Your task to perform on an android device: uninstall "YouTube Kids" Image 0: 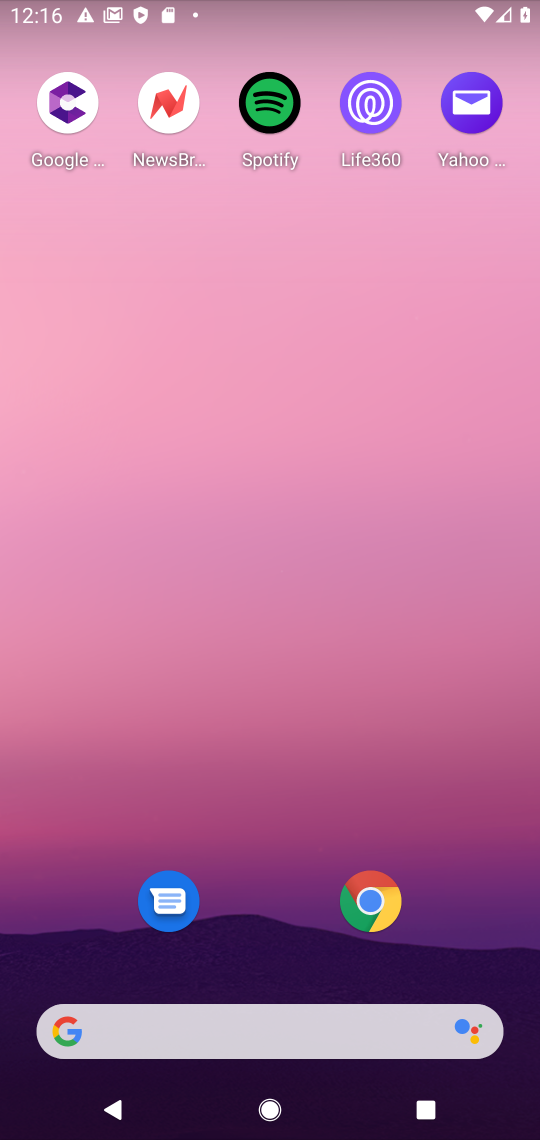
Step 0: drag from (323, 1021) to (371, 105)
Your task to perform on an android device: uninstall "YouTube Kids" Image 1: 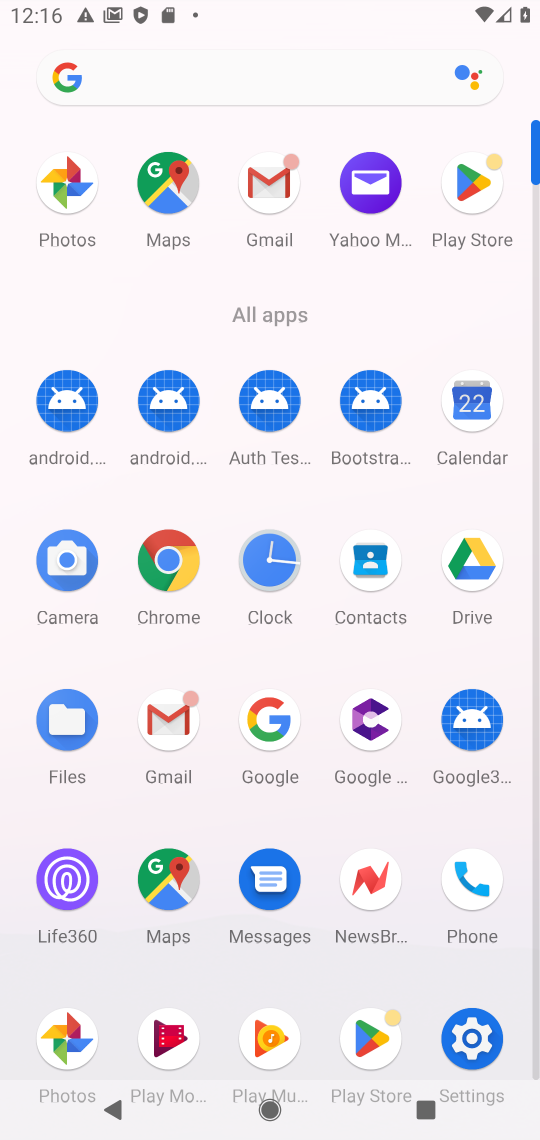
Step 1: click (377, 1055)
Your task to perform on an android device: uninstall "YouTube Kids" Image 2: 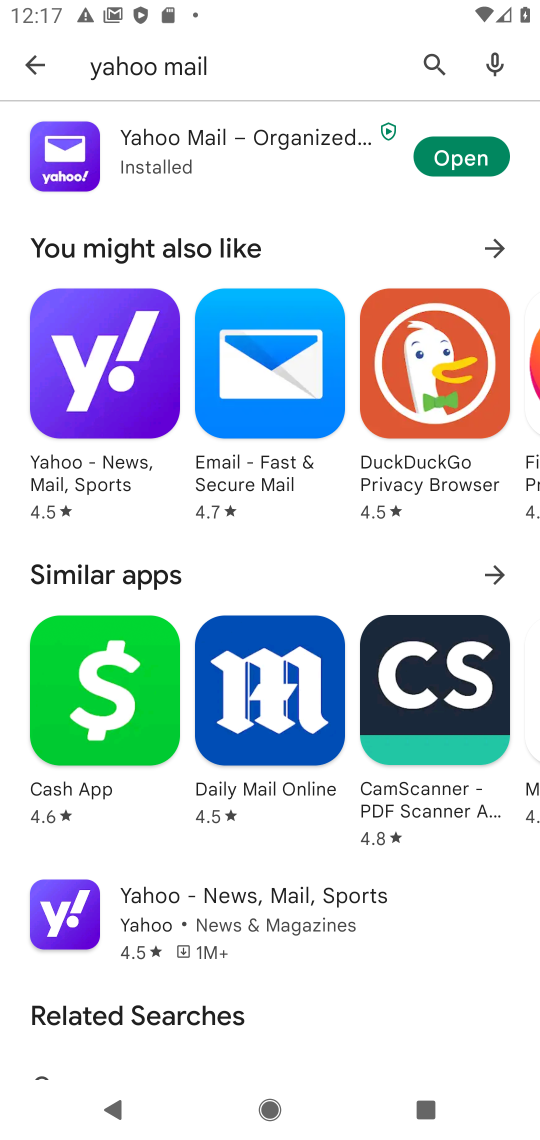
Step 2: click (422, 68)
Your task to perform on an android device: uninstall "YouTube Kids" Image 3: 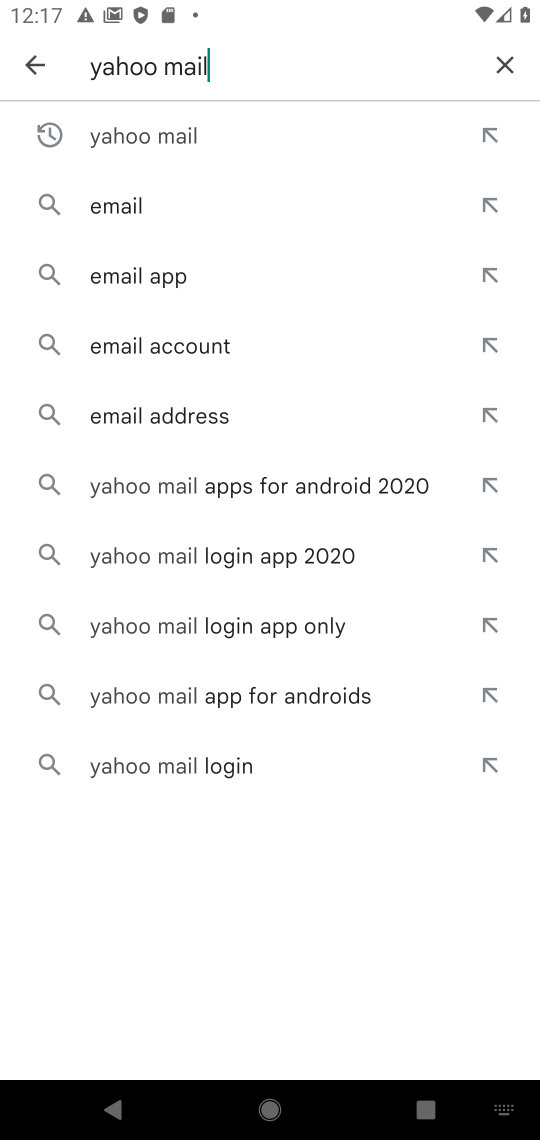
Step 3: click (509, 68)
Your task to perform on an android device: uninstall "YouTube Kids" Image 4: 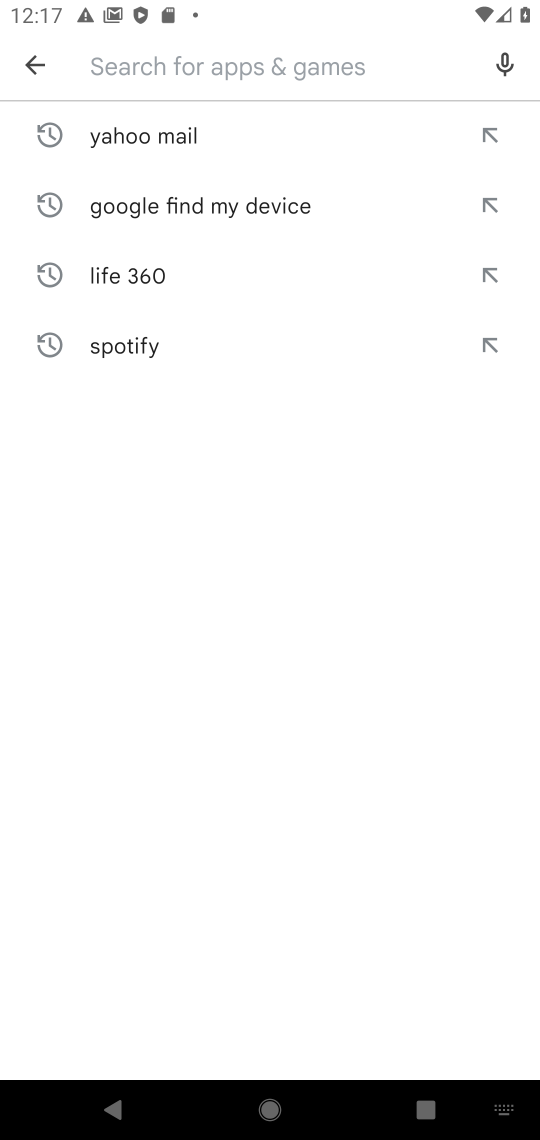
Step 4: type "youtube kids"
Your task to perform on an android device: uninstall "YouTube Kids" Image 5: 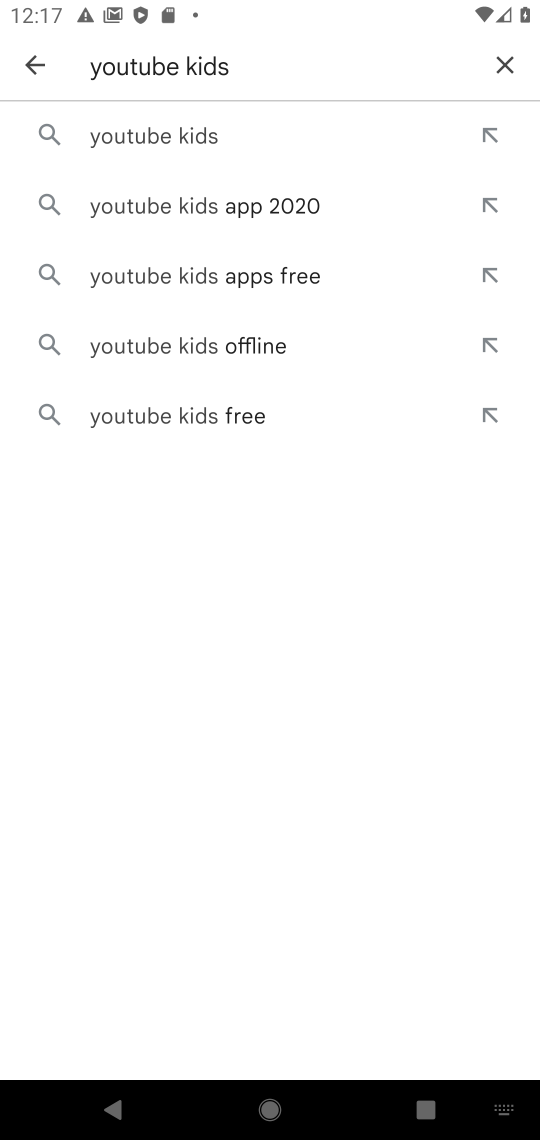
Step 5: click (197, 144)
Your task to perform on an android device: uninstall "YouTube Kids" Image 6: 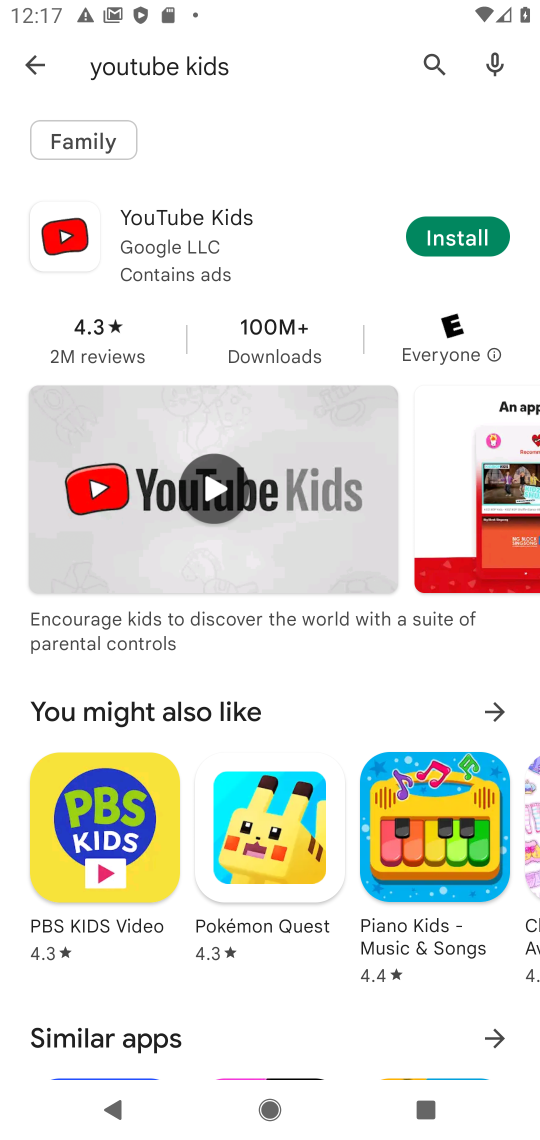
Step 6: task complete